Your task to perform on an android device: Open Chrome and go to settings Image 0: 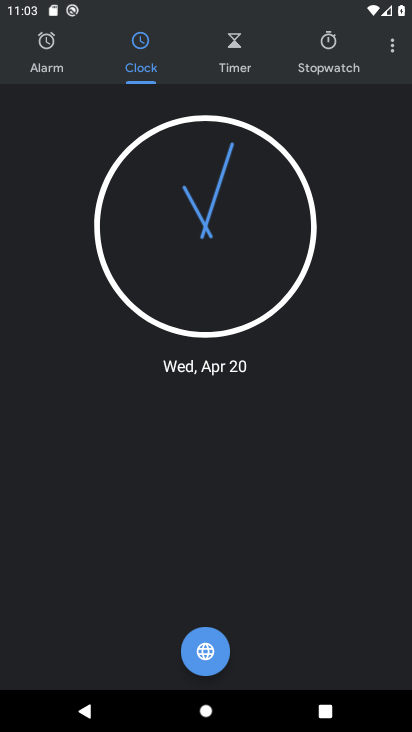
Step 0: press home button
Your task to perform on an android device: Open Chrome and go to settings Image 1: 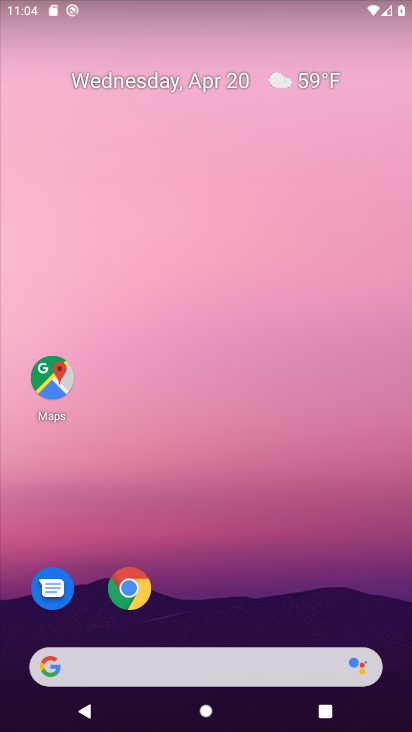
Step 1: click (128, 592)
Your task to perform on an android device: Open Chrome and go to settings Image 2: 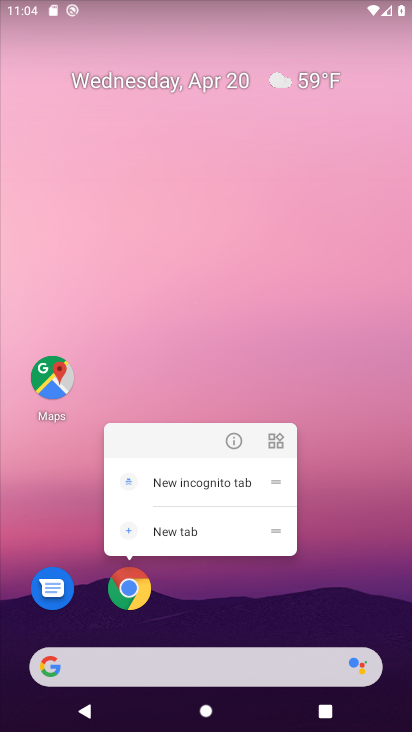
Step 2: click (126, 593)
Your task to perform on an android device: Open Chrome and go to settings Image 3: 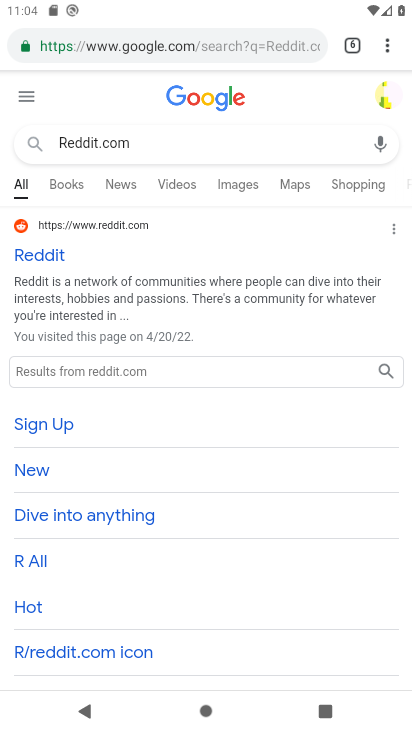
Step 3: click (392, 43)
Your task to perform on an android device: Open Chrome and go to settings Image 4: 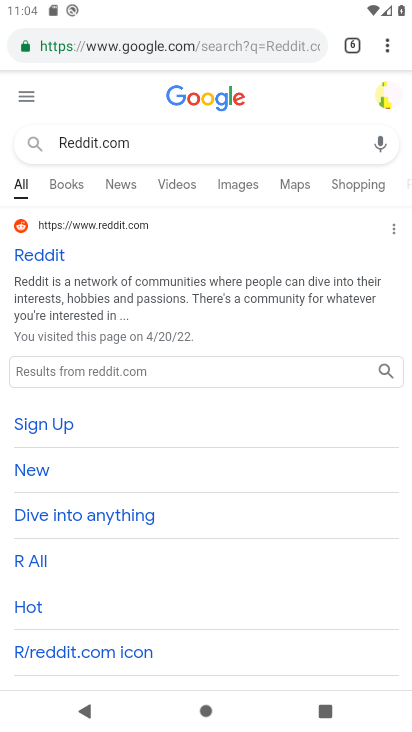
Step 4: click (384, 48)
Your task to perform on an android device: Open Chrome and go to settings Image 5: 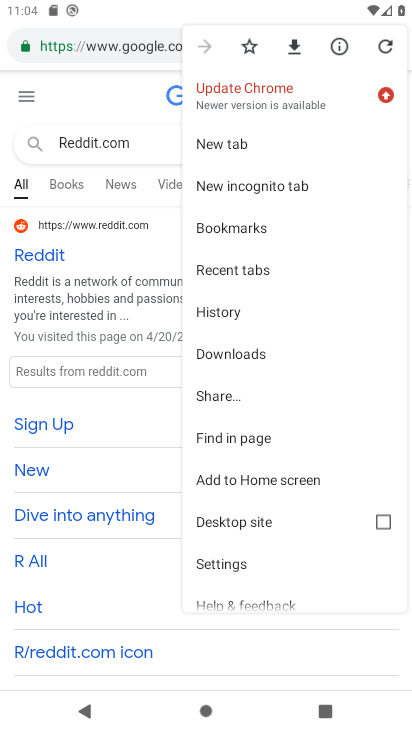
Step 5: click (238, 558)
Your task to perform on an android device: Open Chrome and go to settings Image 6: 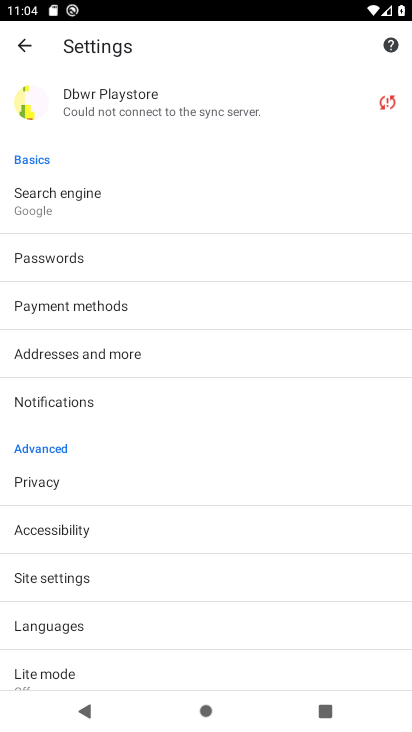
Step 6: task complete